Your task to perform on an android device: change the clock display to analog Image 0: 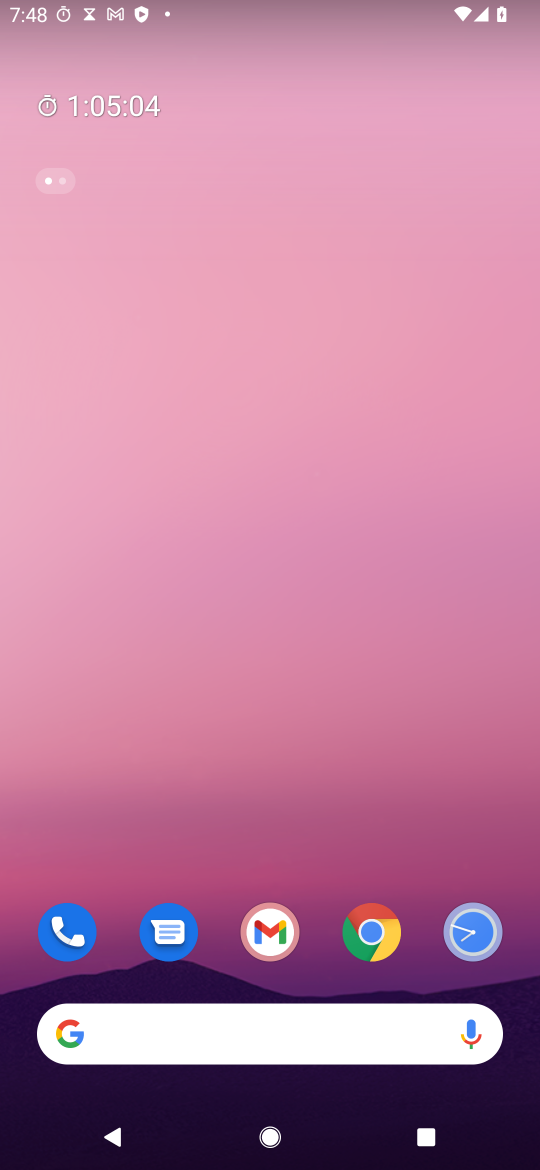
Step 0: drag from (199, 852) to (226, 2)
Your task to perform on an android device: change the clock display to analog Image 1: 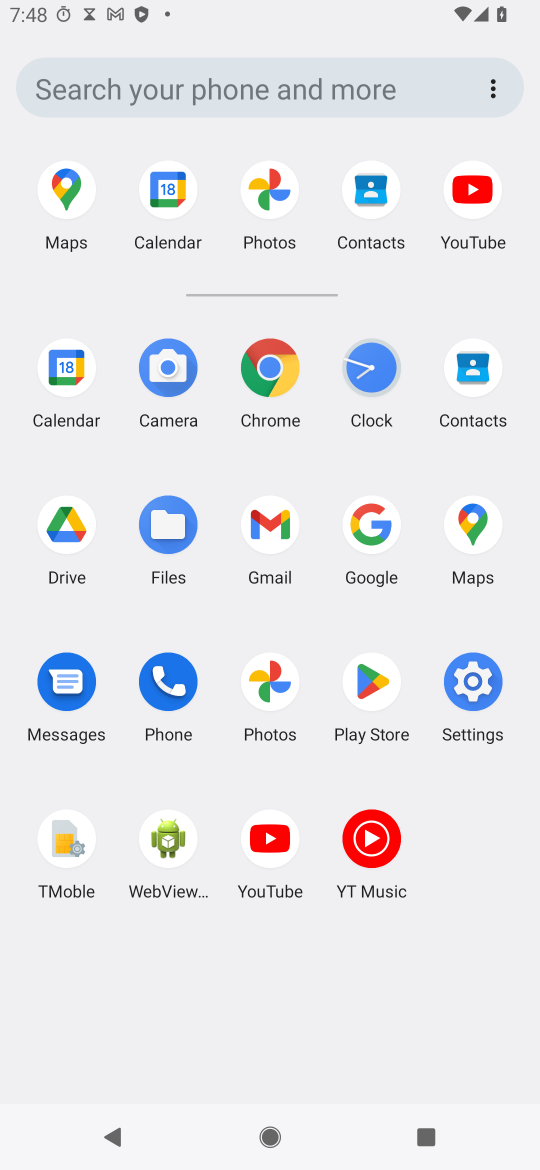
Step 1: click (371, 376)
Your task to perform on an android device: change the clock display to analog Image 2: 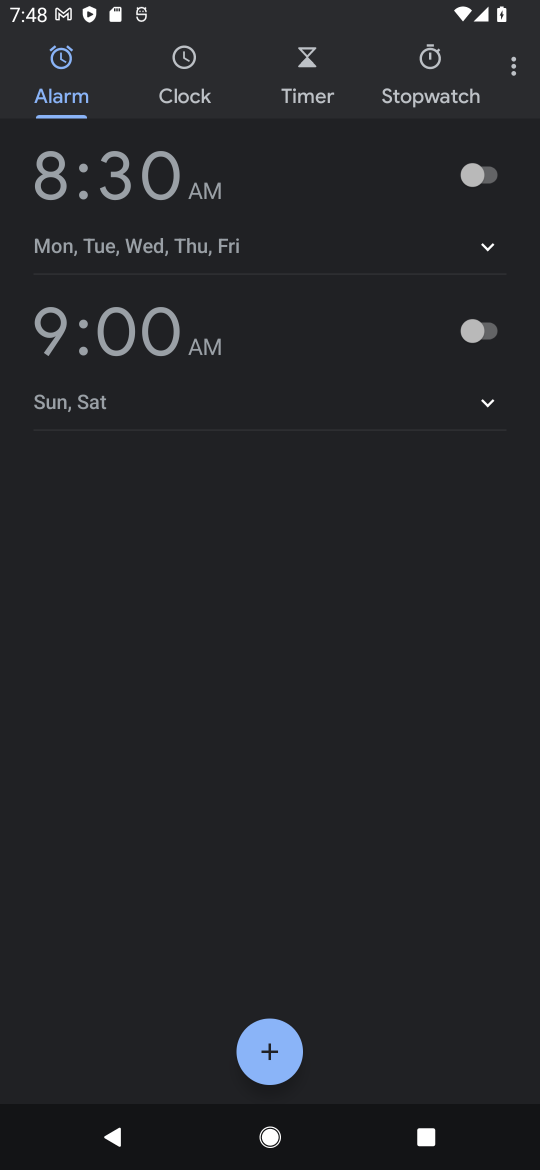
Step 2: click (512, 73)
Your task to perform on an android device: change the clock display to analog Image 3: 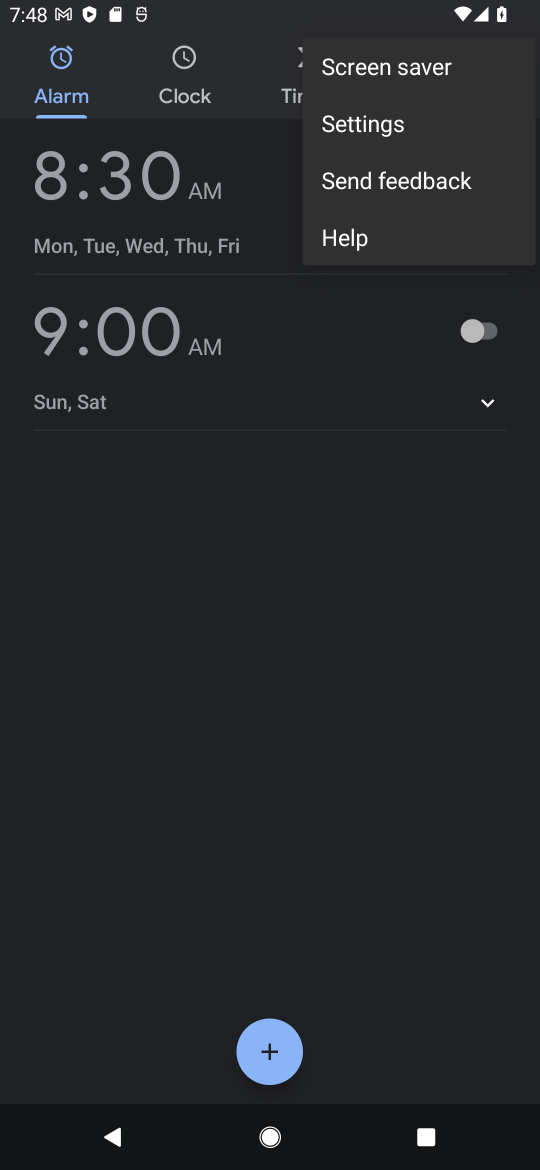
Step 3: click (363, 125)
Your task to perform on an android device: change the clock display to analog Image 4: 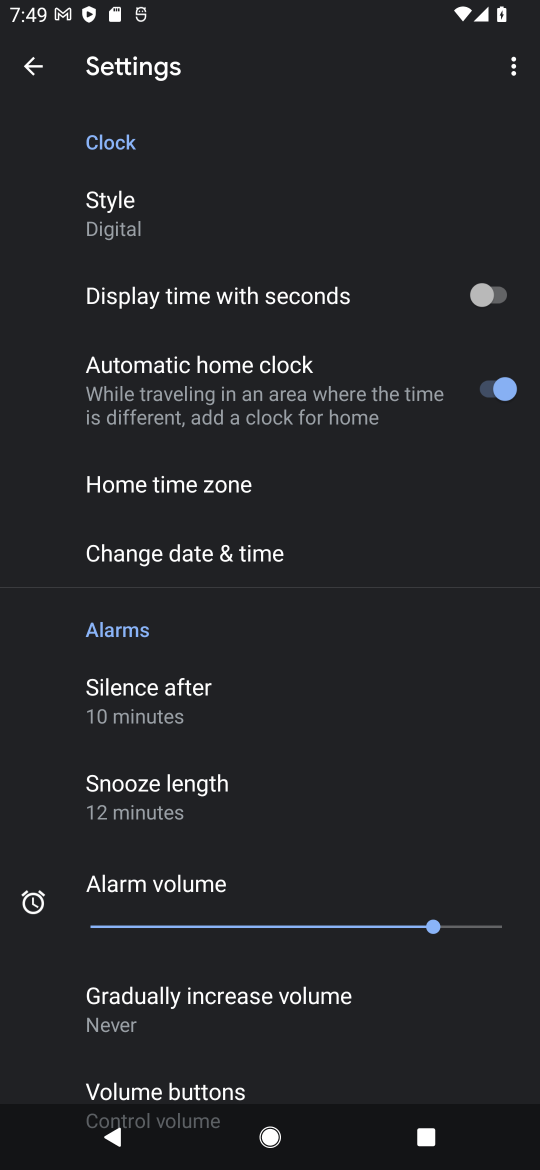
Step 4: click (129, 203)
Your task to perform on an android device: change the clock display to analog Image 5: 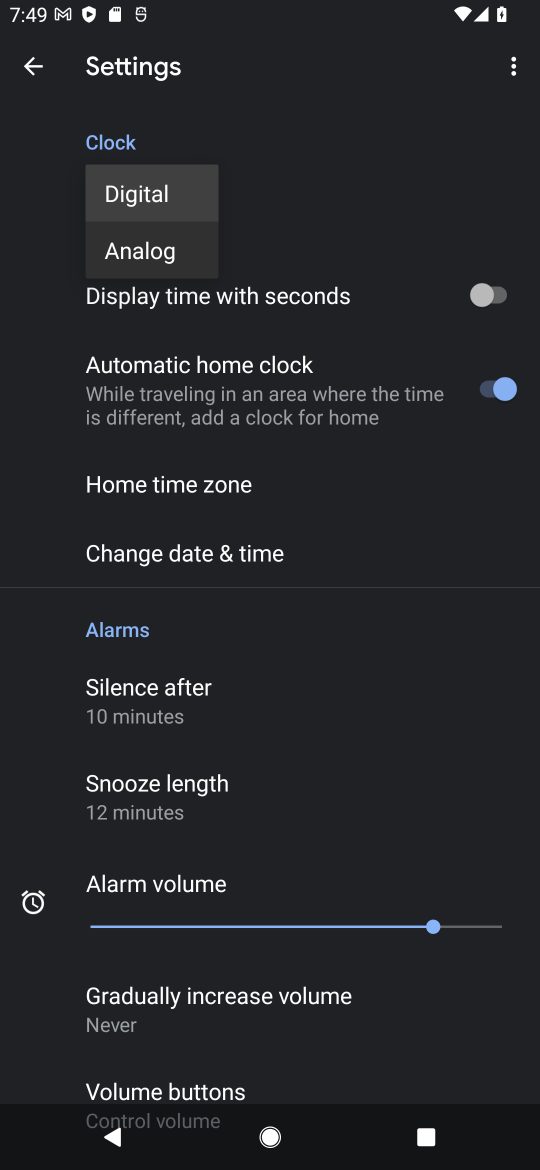
Step 5: click (175, 254)
Your task to perform on an android device: change the clock display to analog Image 6: 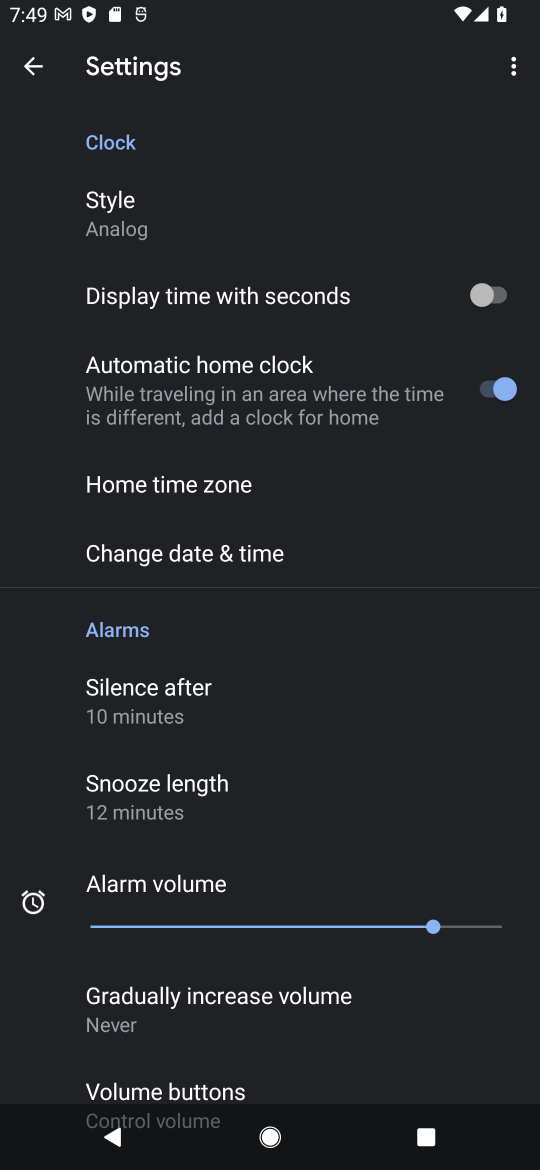
Step 6: task complete